Your task to perform on an android device: find photos in the google photos app Image 0: 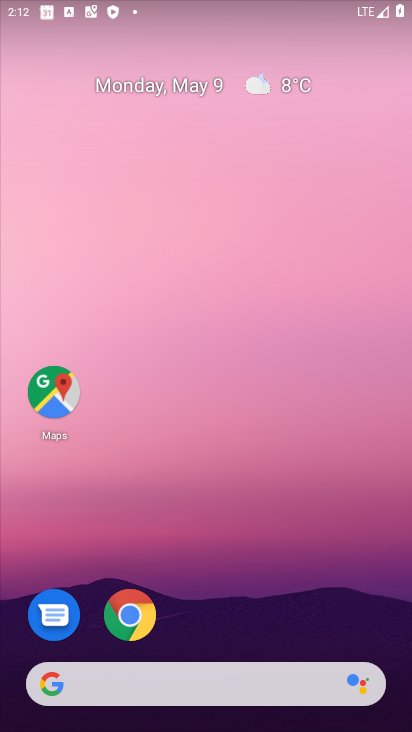
Step 0: drag from (344, 624) to (364, 10)
Your task to perform on an android device: find photos in the google photos app Image 1: 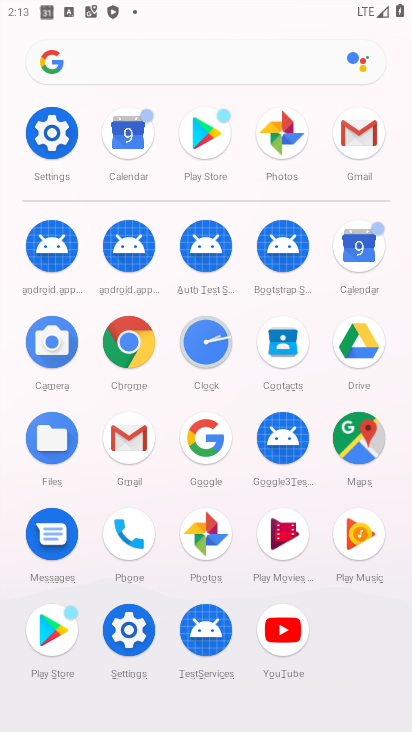
Step 1: click (208, 532)
Your task to perform on an android device: find photos in the google photos app Image 2: 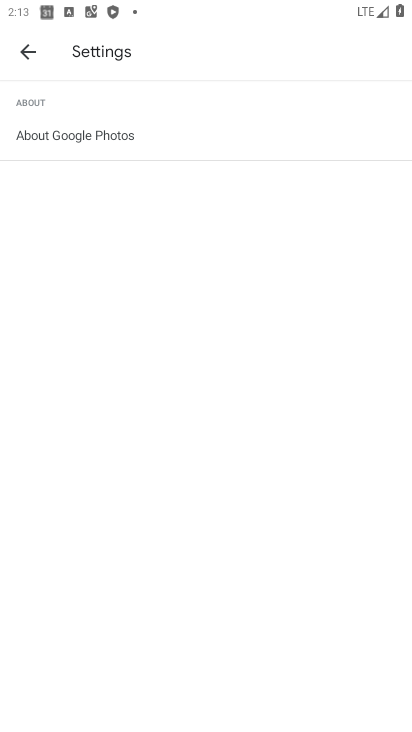
Step 2: task complete